Your task to perform on an android device: turn on improve location accuracy Image 0: 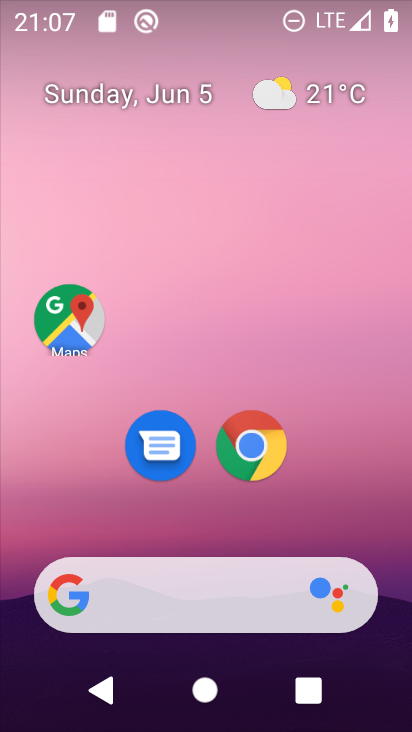
Step 0: drag from (365, 526) to (349, 209)
Your task to perform on an android device: turn on improve location accuracy Image 1: 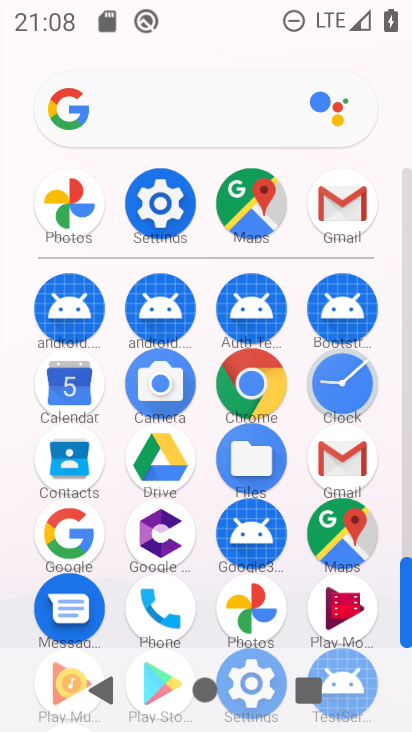
Step 1: click (164, 198)
Your task to perform on an android device: turn on improve location accuracy Image 2: 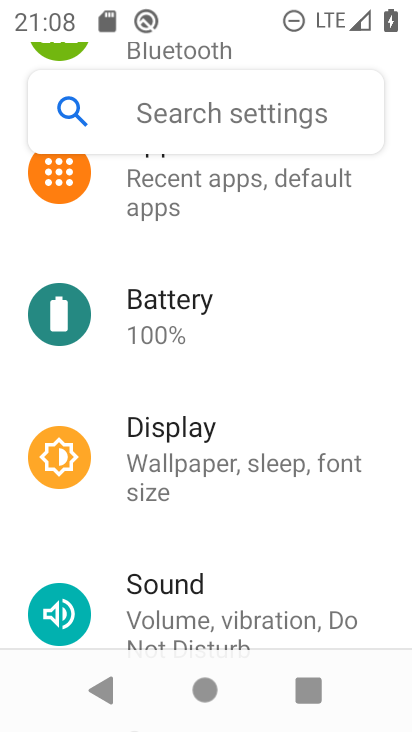
Step 2: drag from (310, 252) to (349, 218)
Your task to perform on an android device: turn on improve location accuracy Image 3: 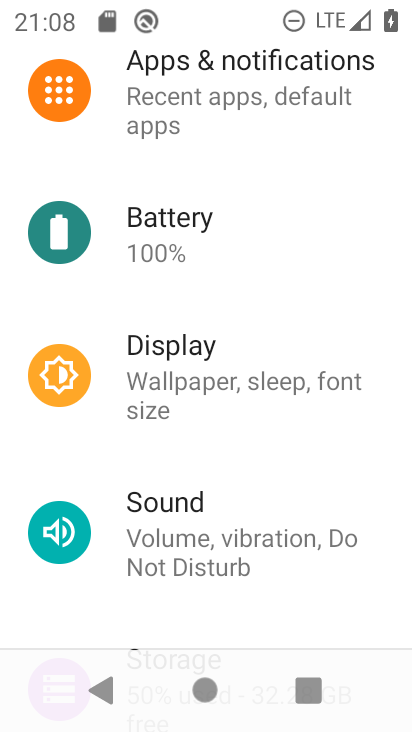
Step 3: drag from (95, 460) to (192, 72)
Your task to perform on an android device: turn on improve location accuracy Image 4: 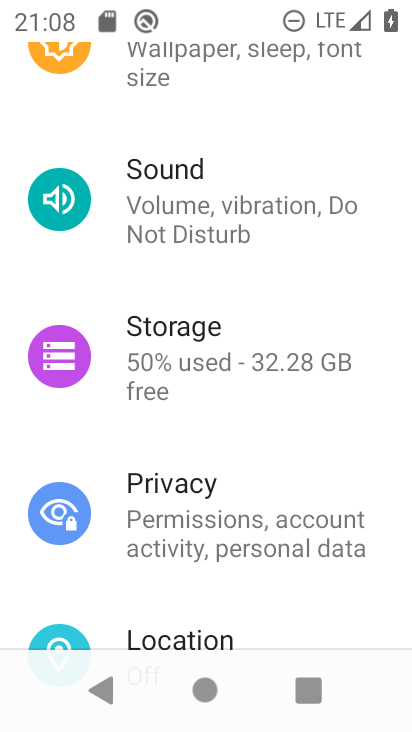
Step 4: click (178, 632)
Your task to perform on an android device: turn on improve location accuracy Image 5: 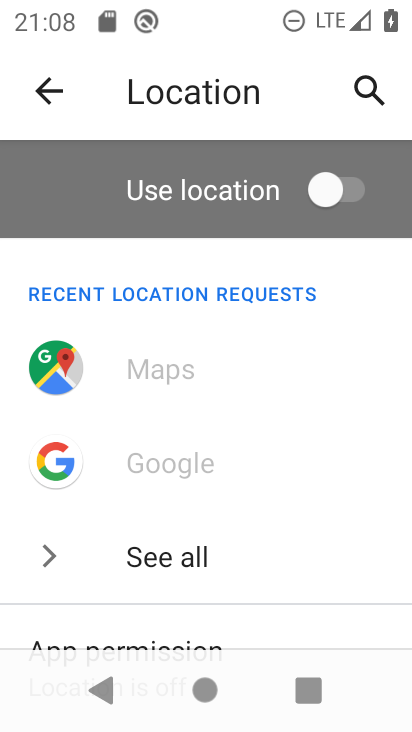
Step 5: drag from (66, 522) to (224, 277)
Your task to perform on an android device: turn on improve location accuracy Image 6: 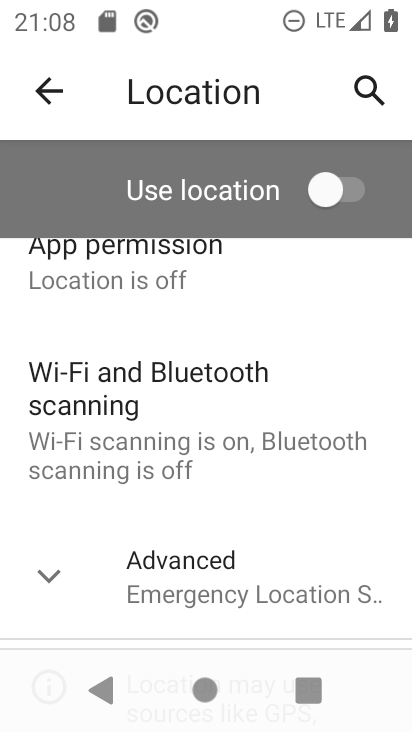
Step 6: click (91, 555)
Your task to perform on an android device: turn on improve location accuracy Image 7: 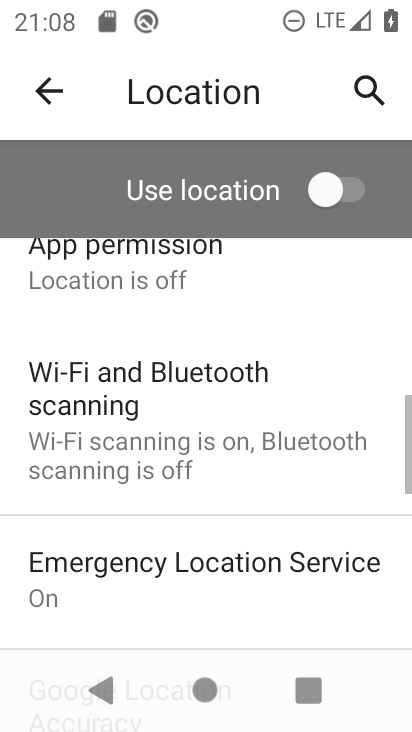
Step 7: task complete